Your task to perform on an android device: add a contact in the contacts app Image 0: 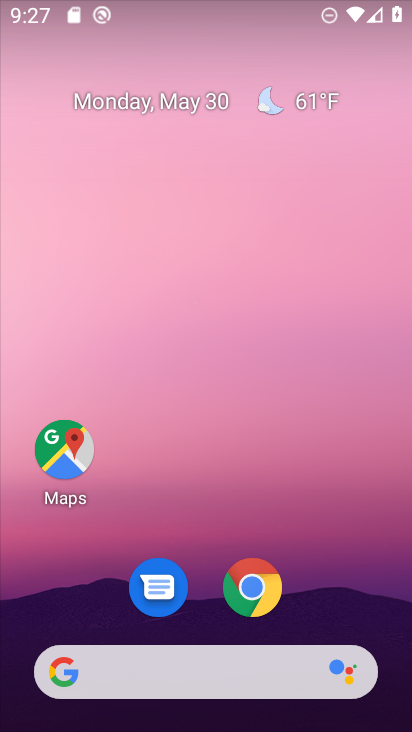
Step 0: drag from (185, 633) to (167, 11)
Your task to perform on an android device: add a contact in the contacts app Image 1: 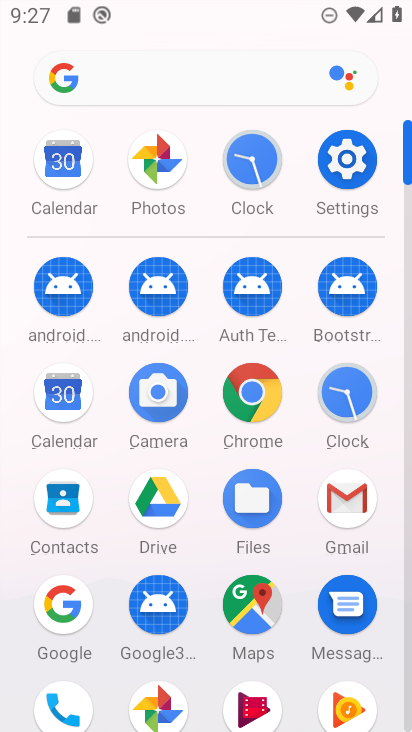
Step 1: click (72, 709)
Your task to perform on an android device: add a contact in the contacts app Image 2: 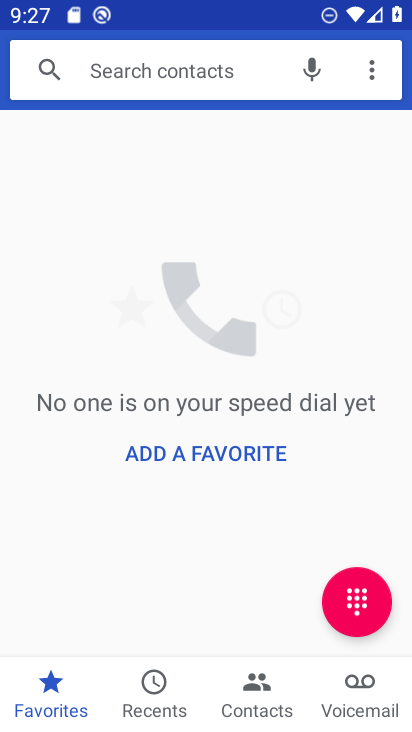
Step 2: click (259, 695)
Your task to perform on an android device: add a contact in the contacts app Image 3: 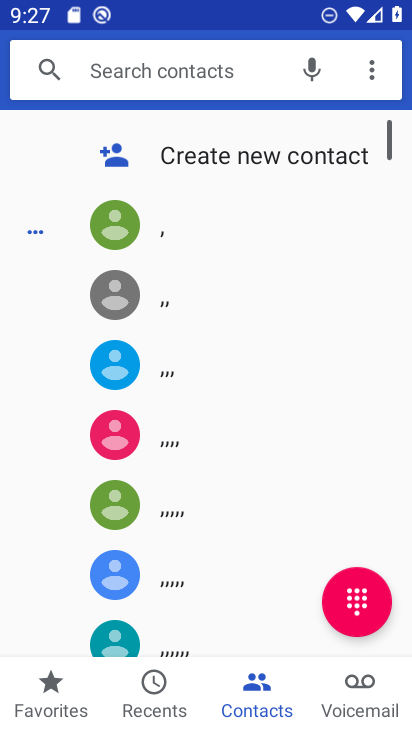
Step 3: click (240, 155)
Your task to perform on an android device: add a contact in the contacts app Image 4: 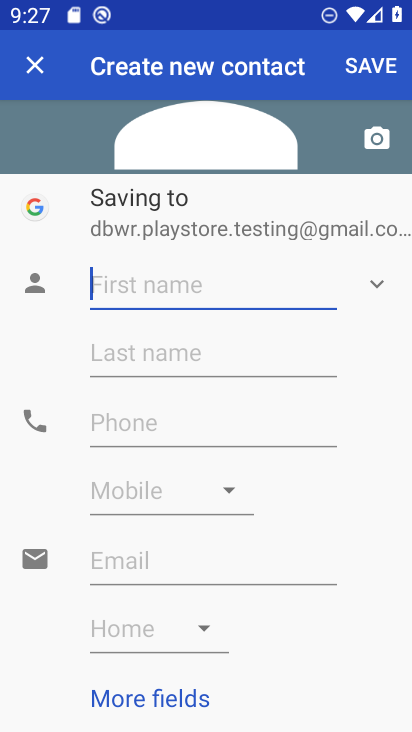
Step 4: type "bbvhf"
Your task to perform on an android device: add a contact in the contacts app Image 5: 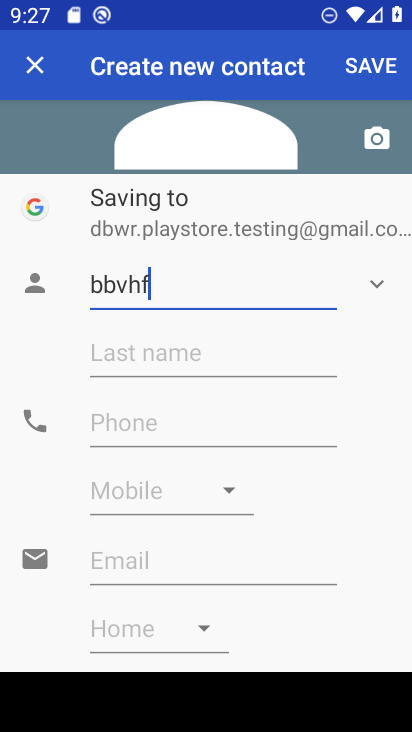
Step 5: click (240, 437)
Your task to perform on an android device: add a contact in the contacts app Image 6: 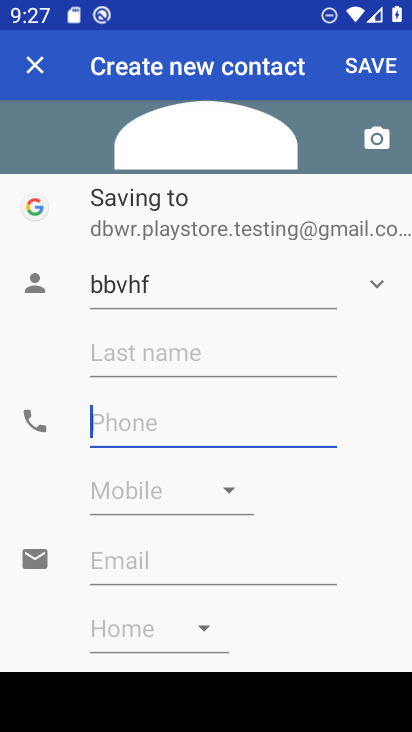
Step 6: type "89876"
Your task to perform on an android device: add a contact in the contacts app Image 7: 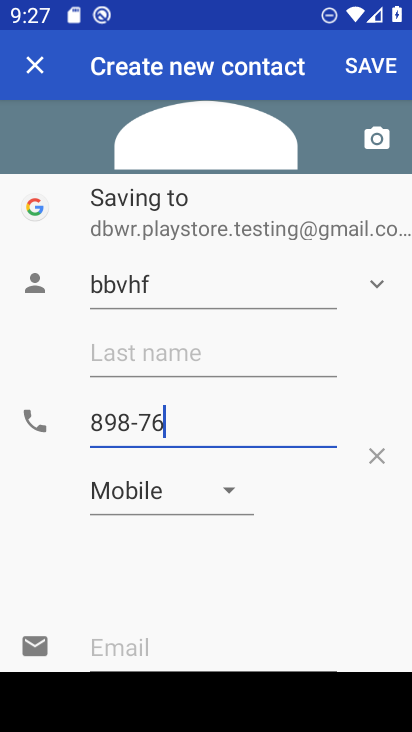
Step 7: type ""
Your task to perform on an android device: add a contact in the contacts app Image 8: 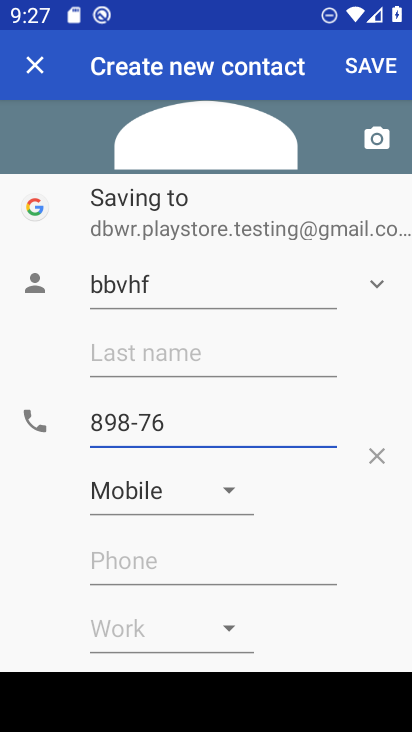
Step 8: click (352, 63)
Your task to perform on an android device: add a contact in the contacts app Image 9: 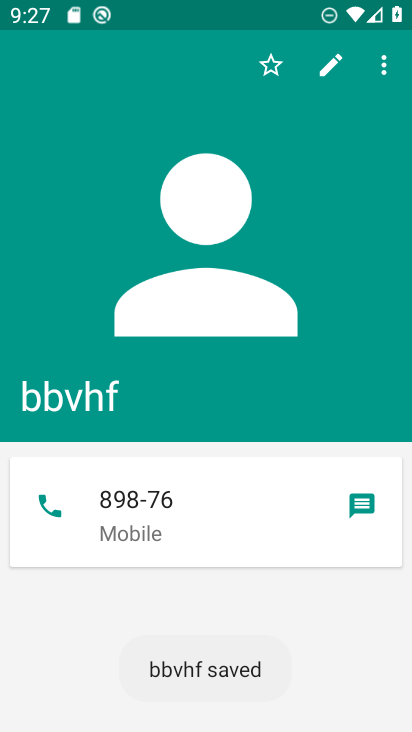
Step 9: task complete